Your task to perform on an android device: turn off notifications in google photos Image 0: 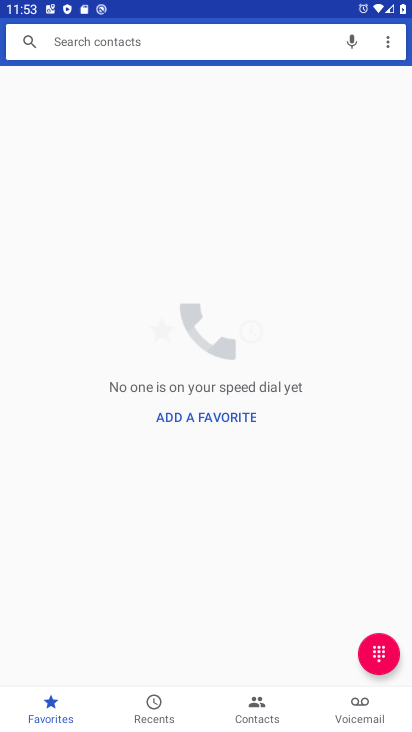
Step 0: press home button
Your task to perform on an android device: turn off notifications in google photos Image 1: 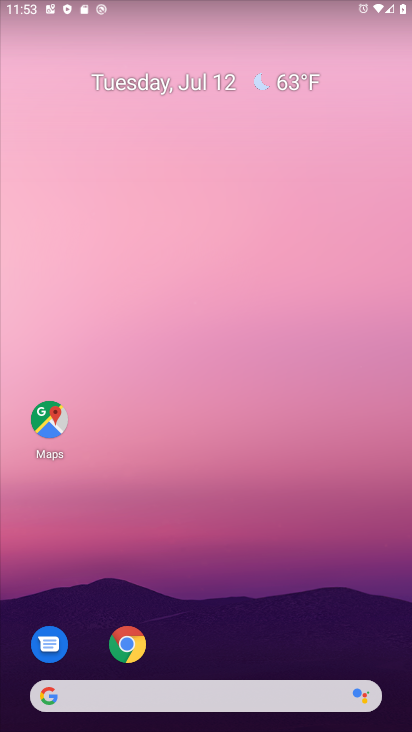
Step 1: drag from (195, 692) to (283, 70)
Your task to perform on an android device: turn off notifications in google photos Image 2: 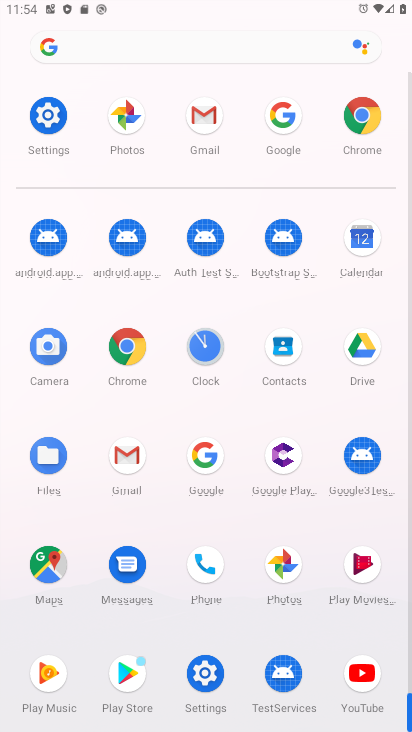
Step 2: click (126, 116)
Your task to perform on an android device: turn off notifications in google photos Image 3: 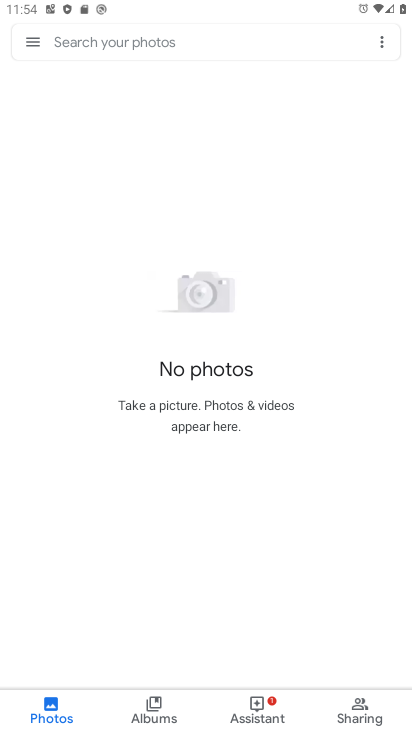
Step 3: click (30, 41)
Your task to perform on an android device: turn off notifications in google photos Image 4: 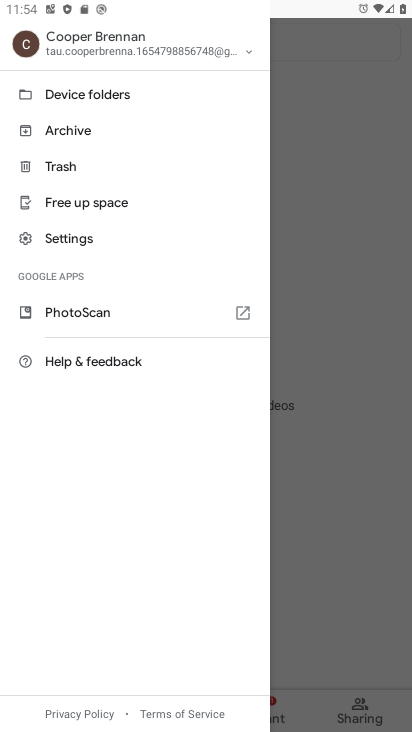
Step 4: click (77, 247)
Your task to perform on an android device: turn off notifications in google photos Image 5: 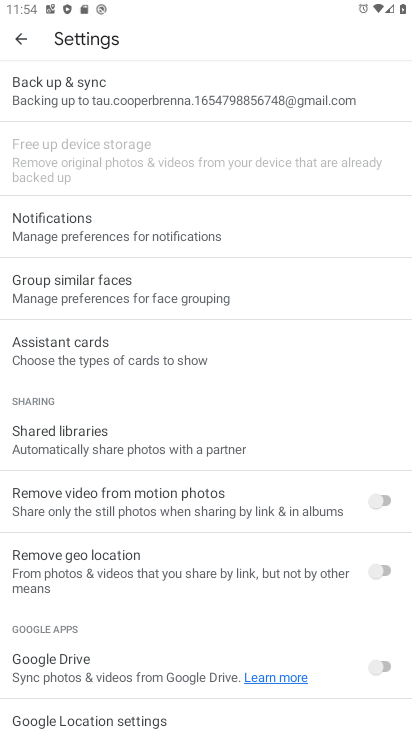
Step 5: click (108, 215)
Your task to perform on an android device: turn off notifications in google photos Image 6: 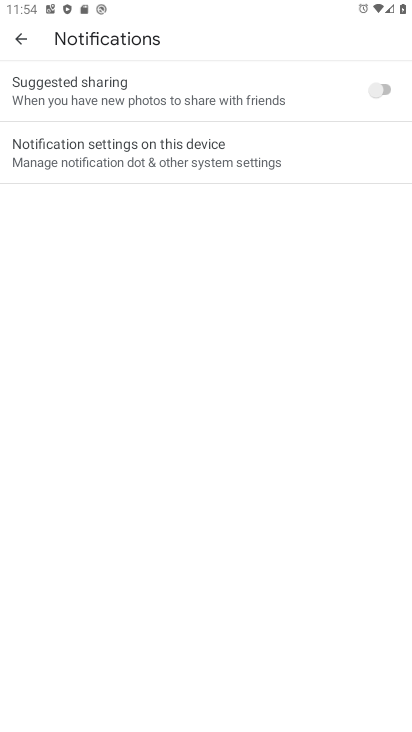
Step 6: click (156, 143)
Your task to perform on an android device: turn off notifications in google photos Image 7: 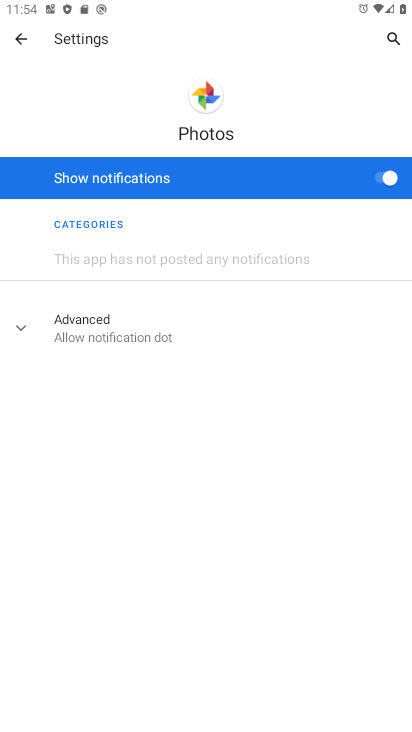
Step 7: click (385, 180)
Your task to perform on an android device: turn off notifications in google photos Image 8: 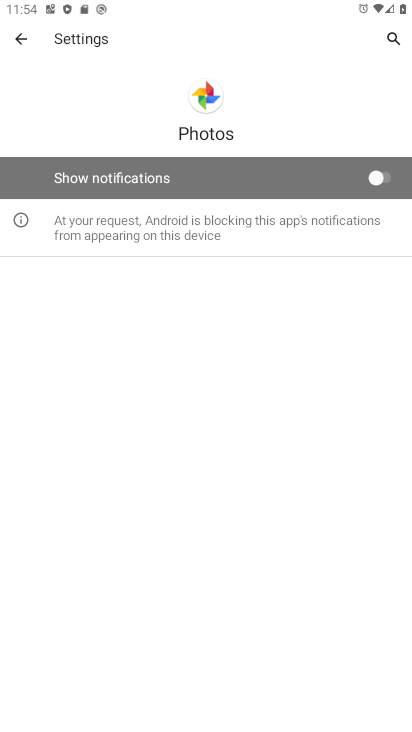
Step 8: task complete